Your task to perform on an android device: check data usage Image 0: 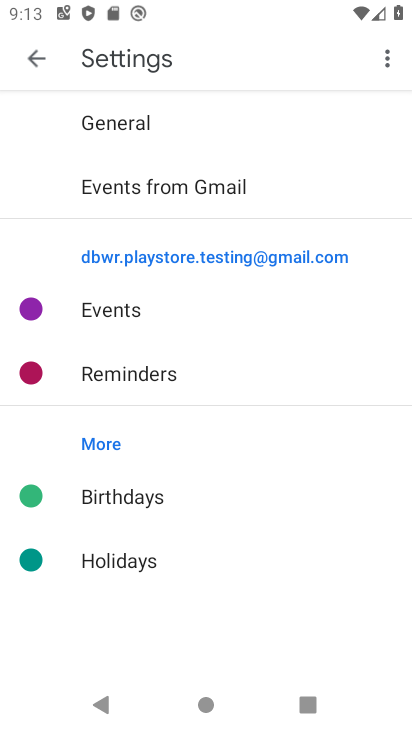
Step 0: press home button
Your task to perform on an android device: check data usage Image 1: 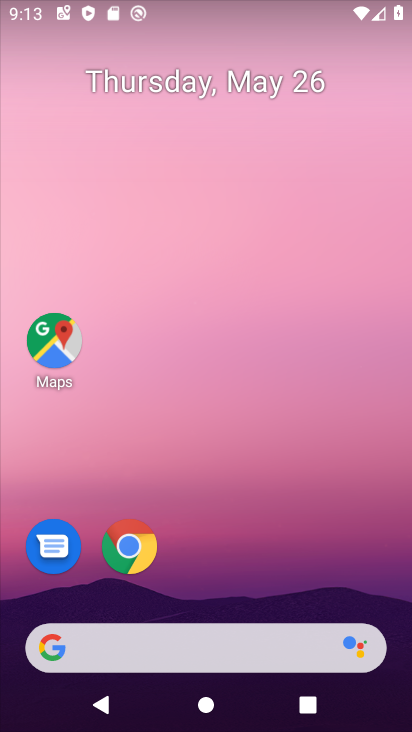
Step 1: drag from (254, 588) to (210, 165)
Your task to perform on an android device: check data usage Image 2: 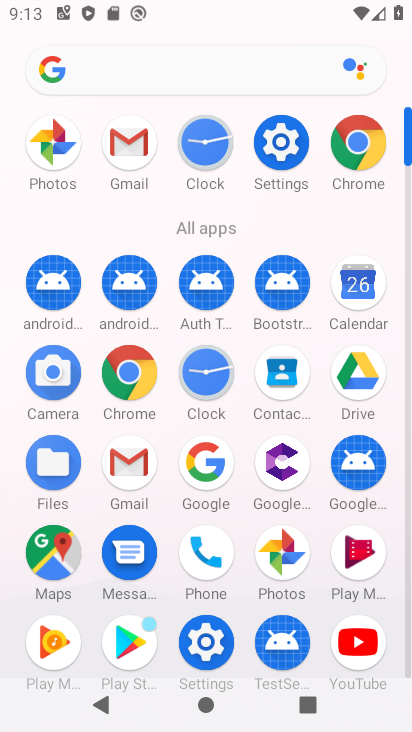
Step 2: click (265, 137)
Your task to perform on an android device: check data usage Image 3: 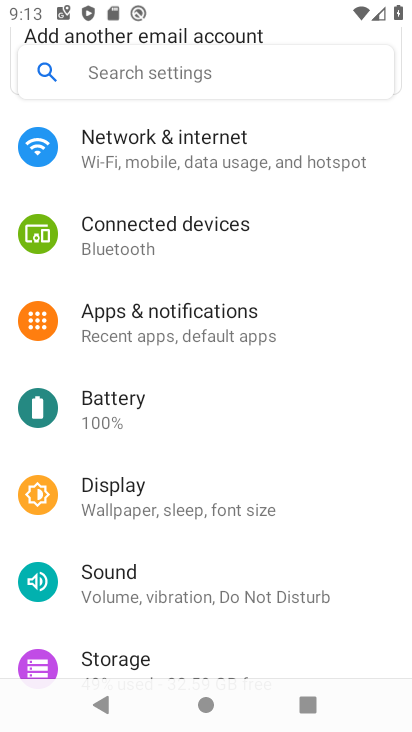
Step 3: click (252, 144)
Your task to perform on an android device: check data usage Image 4: 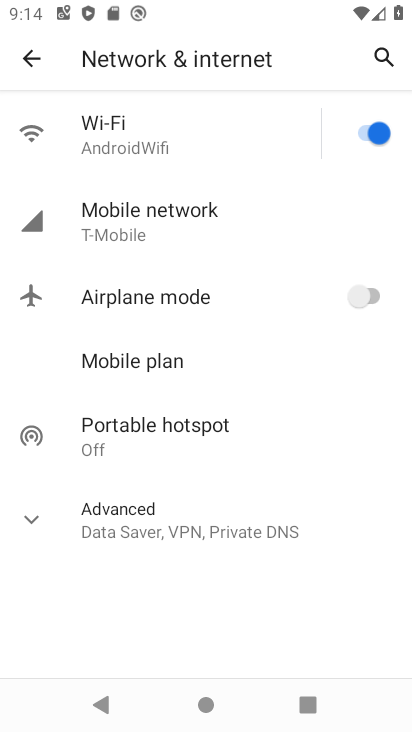
Step 4: click (132, 124)
Your task to perform on an android device: check data usage Image 5: 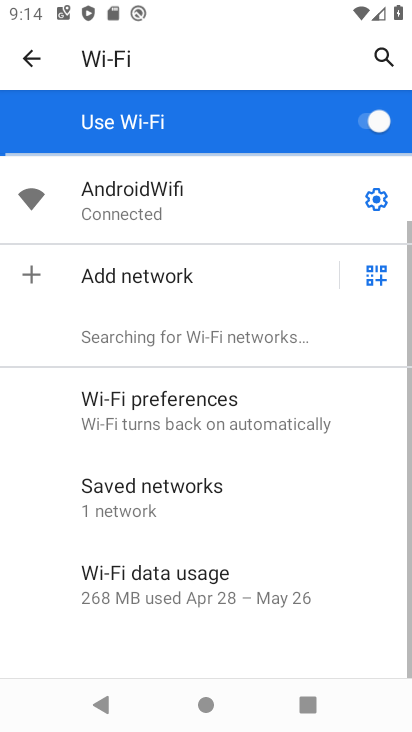
Step 5: click (141, 574)
Your task to perform on an android device: check data usage Image 6: 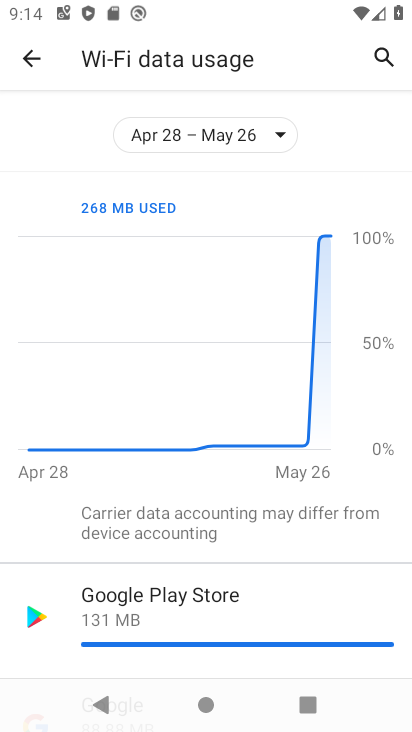
Step 6: task complete